Your task to perform on an android device: toggle improve location accuracy Image 0: 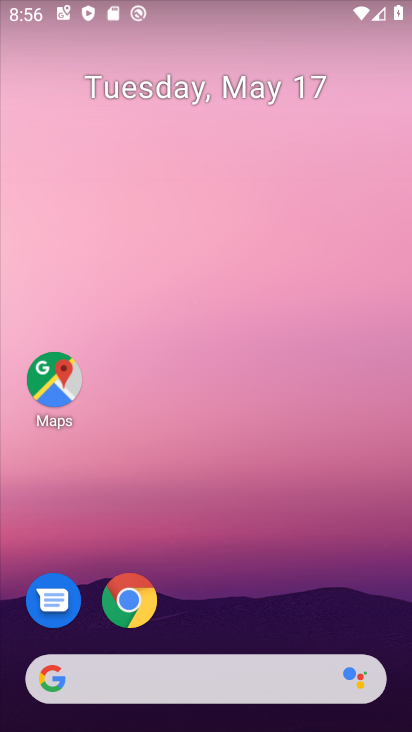
Step 0: drag from (261, 556) to (256, 303)
Your task to perform on an android device: toggle improve location accuracy Image 1: 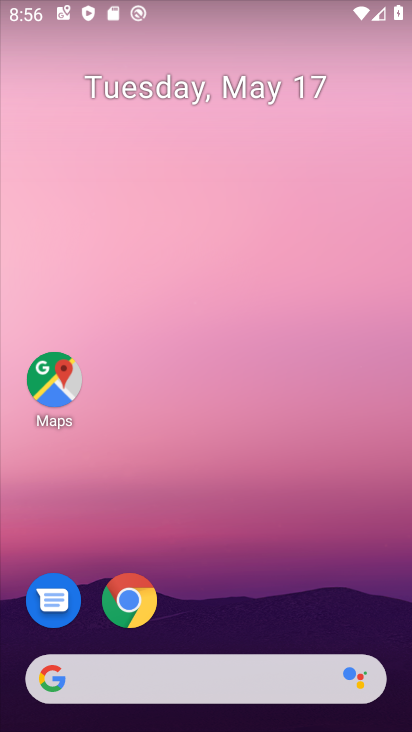
Step 1: drag from (256, 629) to (240, 197)
Your task to perform on an android device: toggle improve location accuracy Image 2: 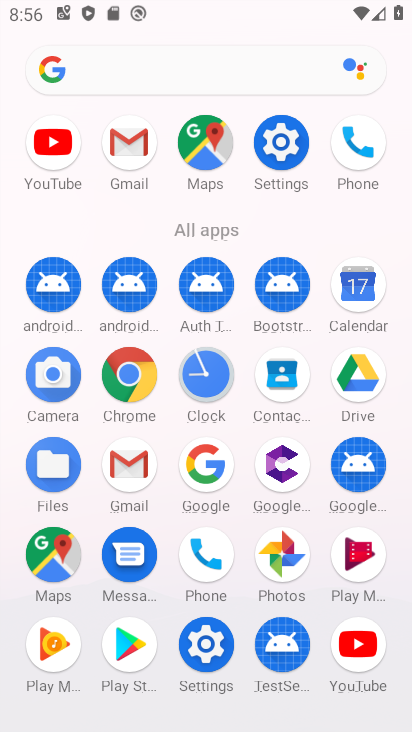
Step 2: click (287, 142)
Your task to perform on an android device: toggle improve location accuracy Image 3: 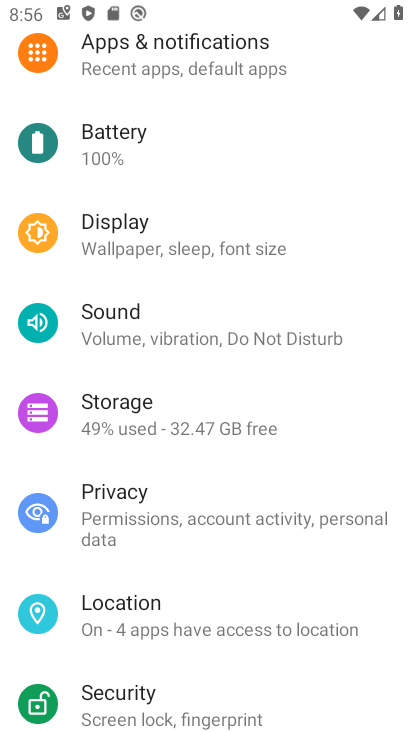
Step 3: click (189, 629)
Your task to perform on an android device: toggle improve location accuracy Image 4: 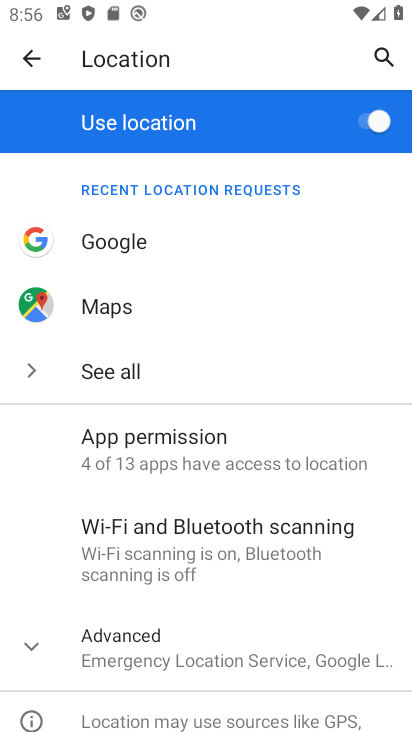
Step 4: click (194, 651)
Your task to perform on an android device: toggle improve location accuracy Image 5: 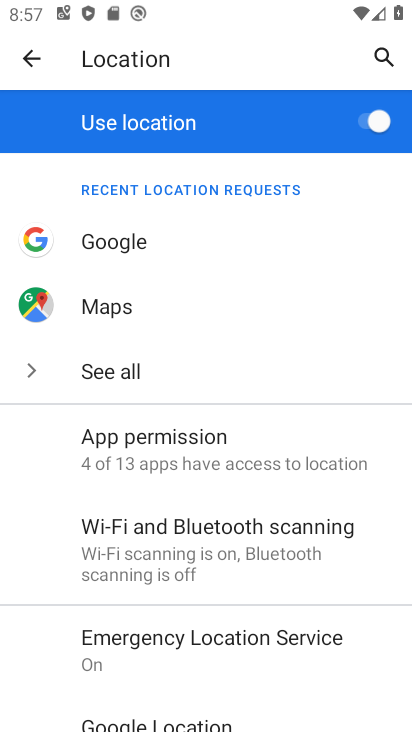
Step 5: drag from (249, 663) to (241, 489)
Your task to perform on an android device: toggle improve location accuracy Image 6: 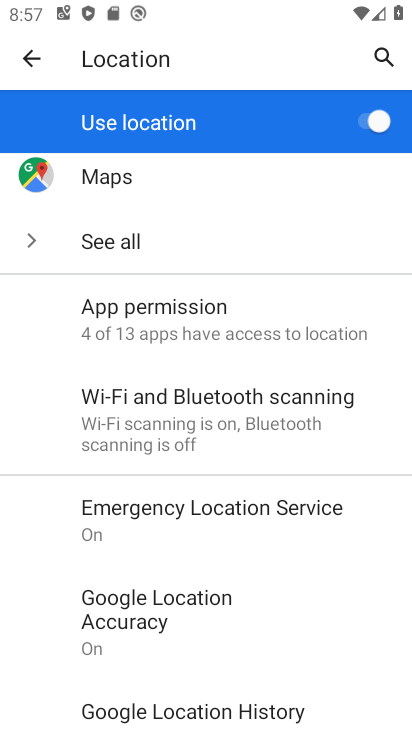
Step 6: drag from (253, 673) to (242, 399)
Your task to perform on an android device: toggle improve location accuracy Image 7: 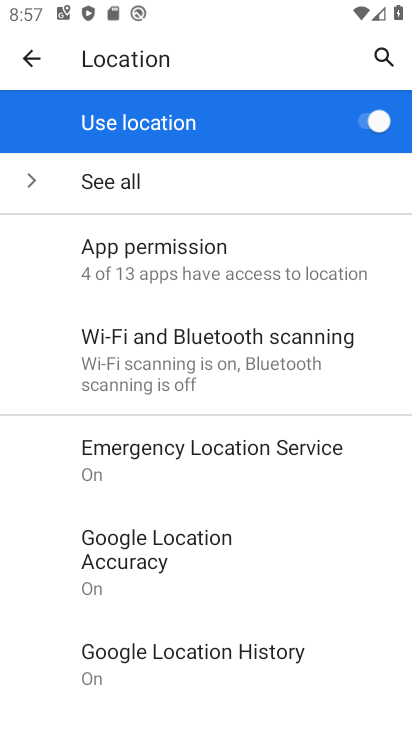
Step 7: click (148, 564)
Your task to perform on an android device: toggle improve location accuracy Image 8: 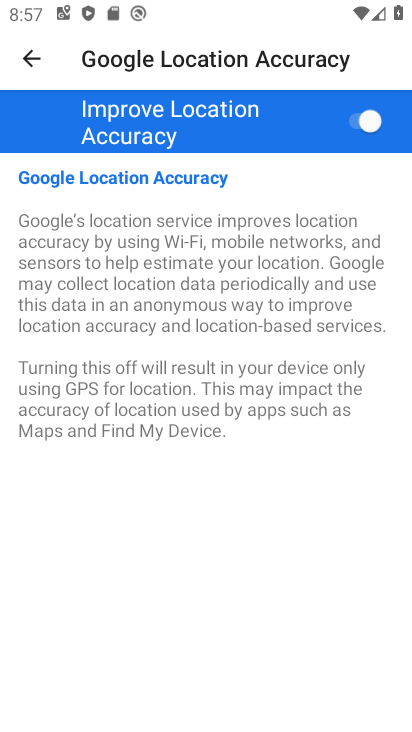
Step 8: click (358, 120)
Your task to perform on an android device: toggle improve location accuracy Image 9: 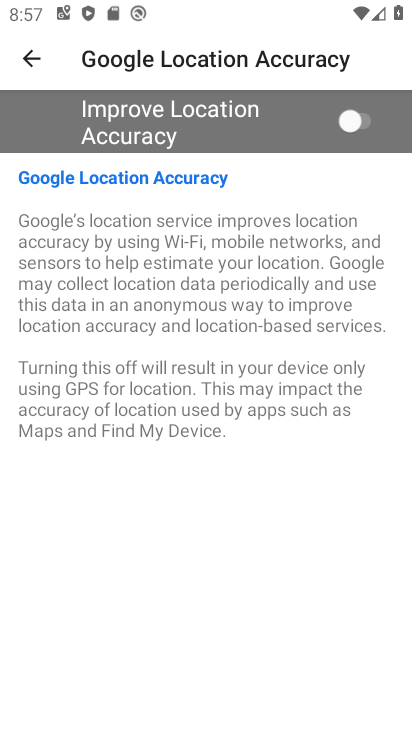
Step 9: task complete